Your task to perform on an android device: Is it going to rain today? Image 0: 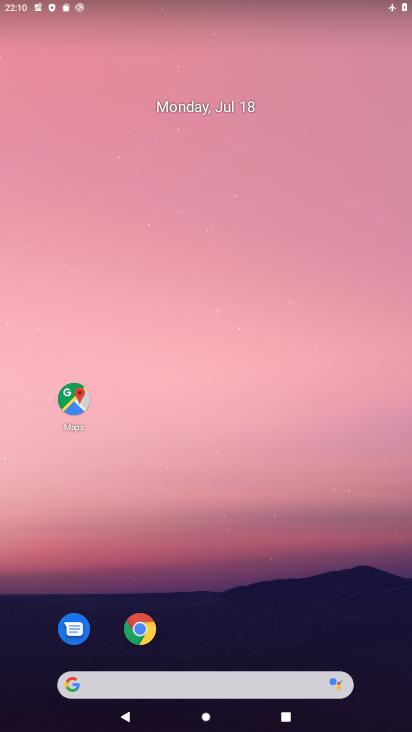
Step 0: drag from (312, 623) to (268, 44)
Your task to perform on an android device: Is it going to rain today? Image 1: 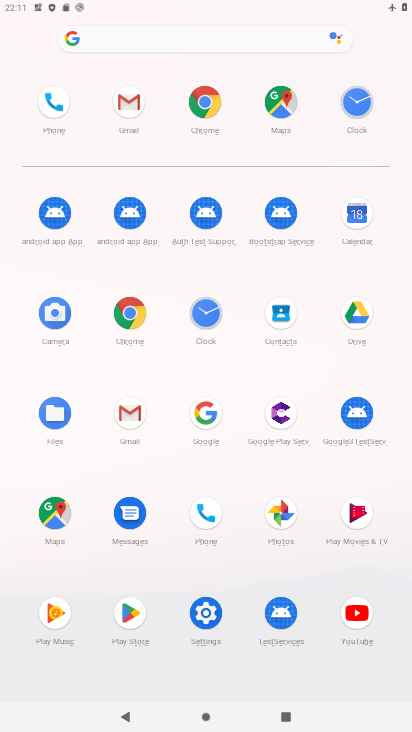
Step 1: click (204, 103)
Your task to perform on an android device: Is it going to rain today? Image 2: 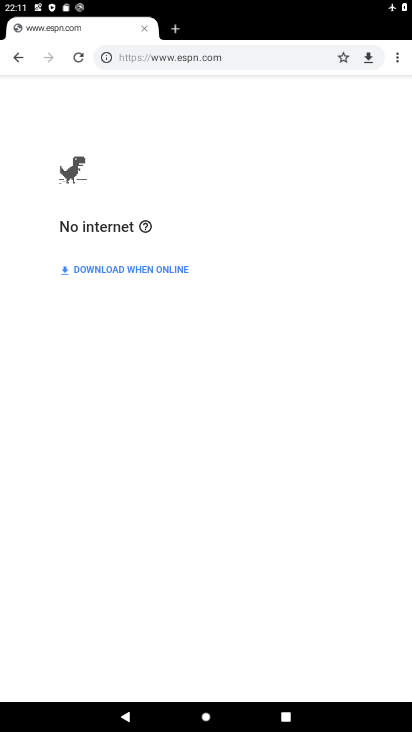
Step 2: click (160, 61)
Your task to perform on an android device: Is it going to rain today? Image 3: 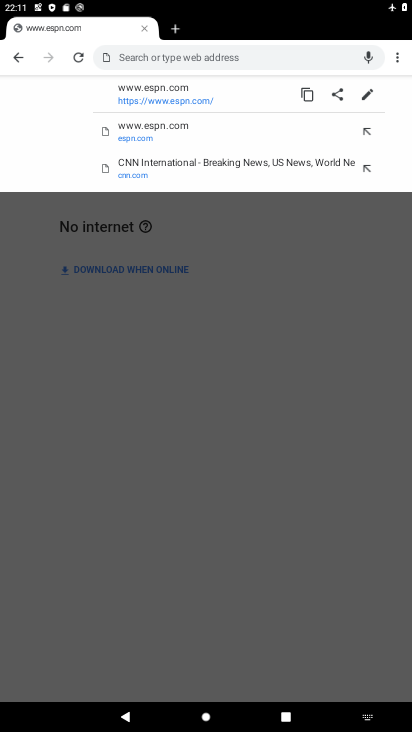
Step 3: type "weather"
Your task to perform on an android device: Is it going to rain today? Image 4: 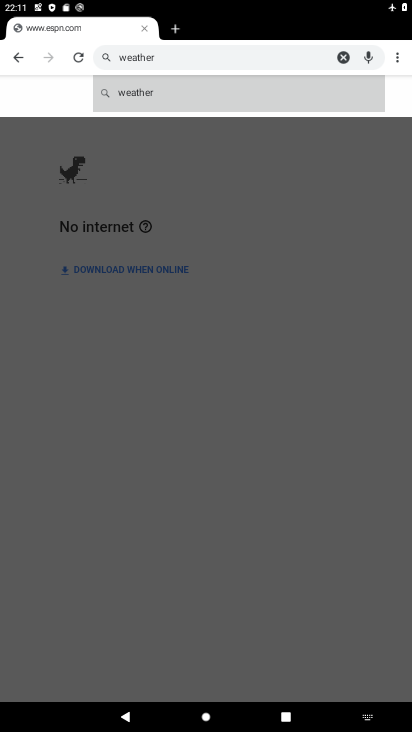
Step 4: click (117, 87)
Your task to perform on an android device: Is it going to rain today? Image 5: 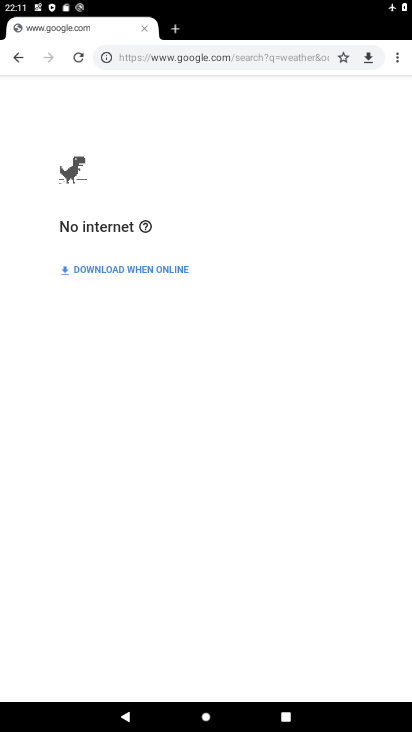
Step 5: task complete